Your task to perform on an android device: turn off sleep mode Image 0: 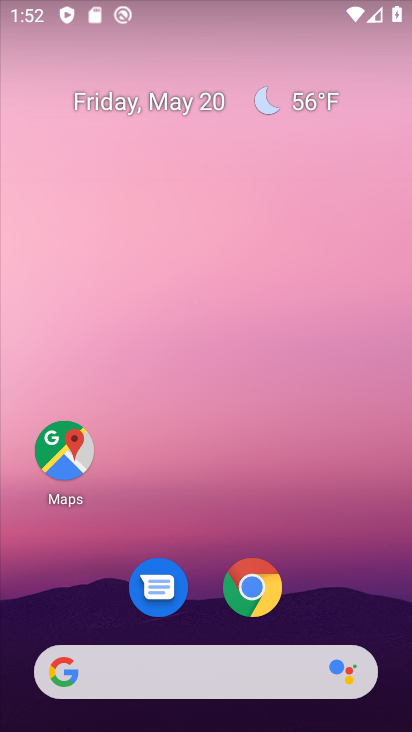
Step 0: drag from (315, 558) to (226, 163)
Your task to perform on an android device: turn off sleep mode Image 1: 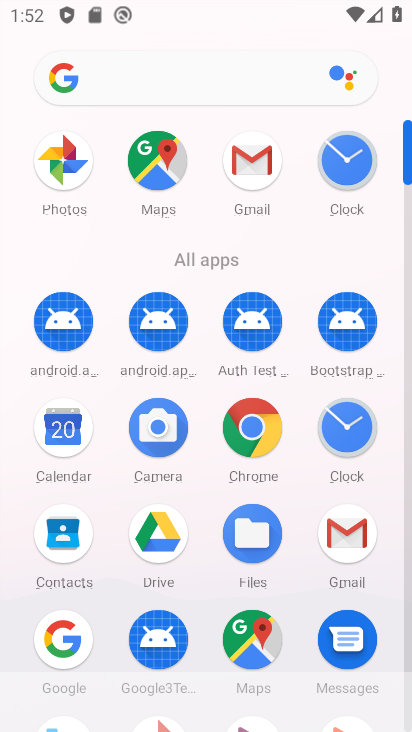
Step 1: drag from (277, 4) to (269, 727)
Your task to perform on an android device: turn off sleep mode Image 2: 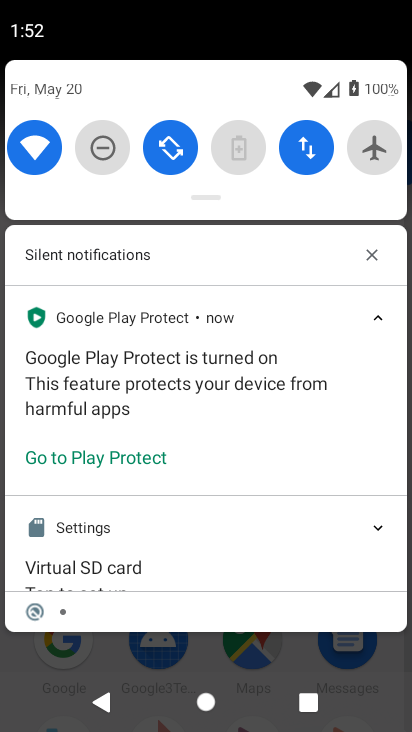
Step 2: drag from (269, 187) to (242, 548)
Your task to perform on an android device: turn off sleep mode Image 3: 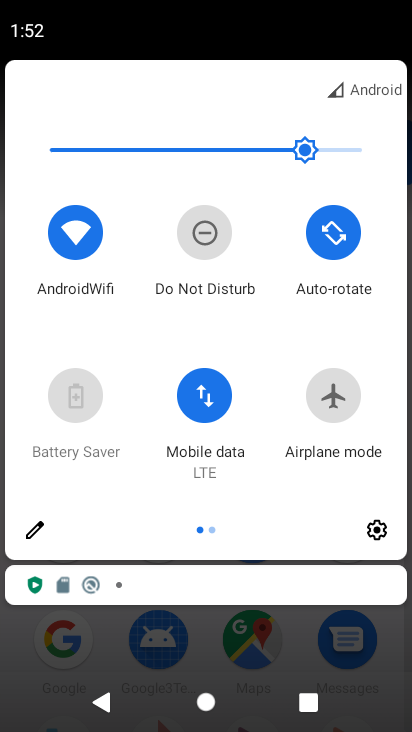
Step 3: click (31, 532)
Your task to perform on an android device: turn off sleep mode Image 4: 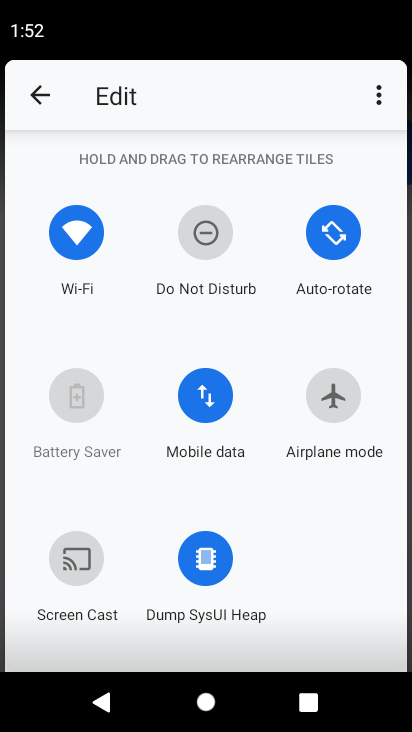
Step 4: task complete